Your task to perform on an android device: Go to internet settings Image 0: 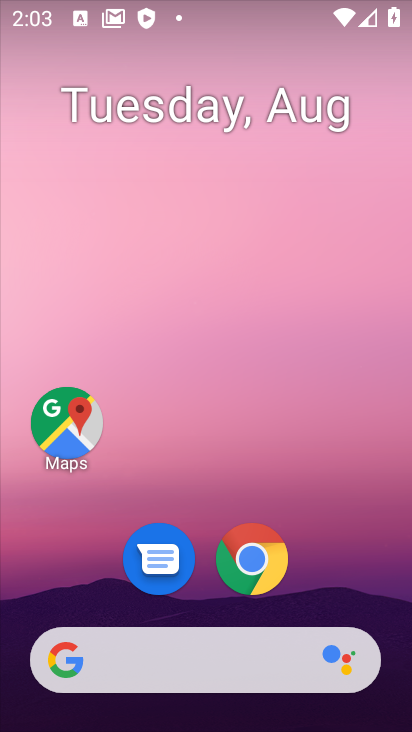
Step 0: drag from (190, 502) to (206, 51)
Your task to perform on an android device: Go to internet settings Image 1: 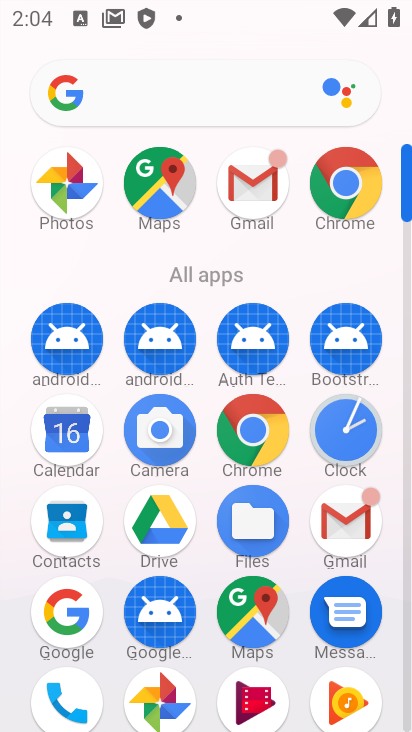
Step 1: drag from (212, 562) to (223, 186)
Your task to perform on an android device: Go to internet settings Image 2: 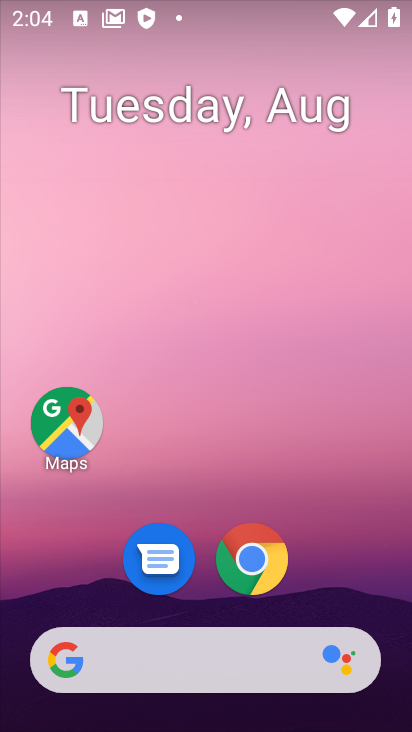
Step 2: drag from (206, 432) to (215, 80)
Your task to perform on an android device: Go to internet settings Image 3: 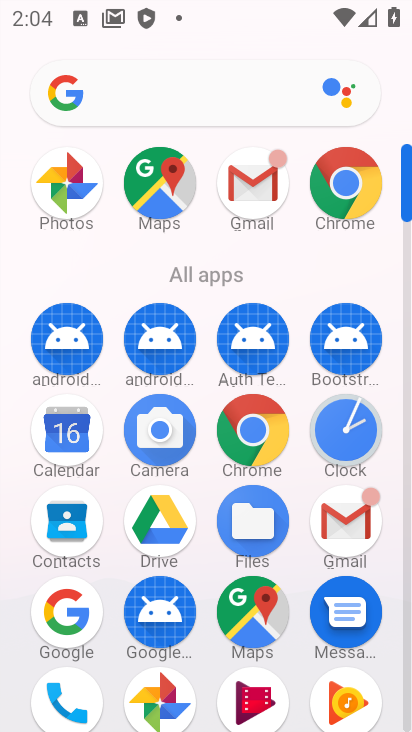
Step 3: drag from (194, 470) to (187, 82)
Your task to perform on an android device: Go to internet settings Image 4: 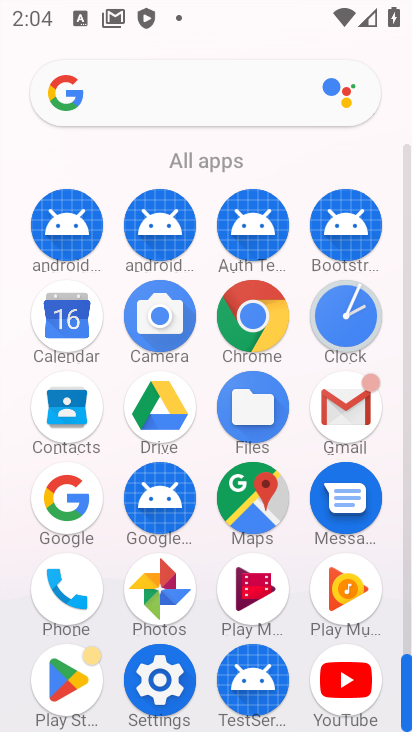
Step 4: click (166, 654)
Your task to perform on an android device: Go to internet settings Image 5: 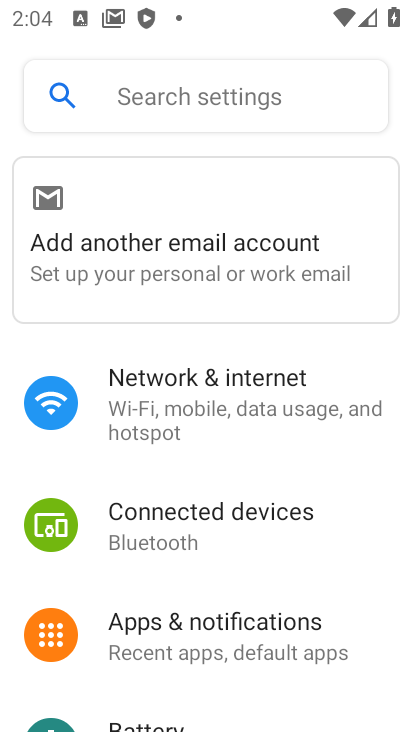
Step 5: drag from (174, 576) to (196, 439)
Your task to perform on an android device: Go to internet settings Image 6: 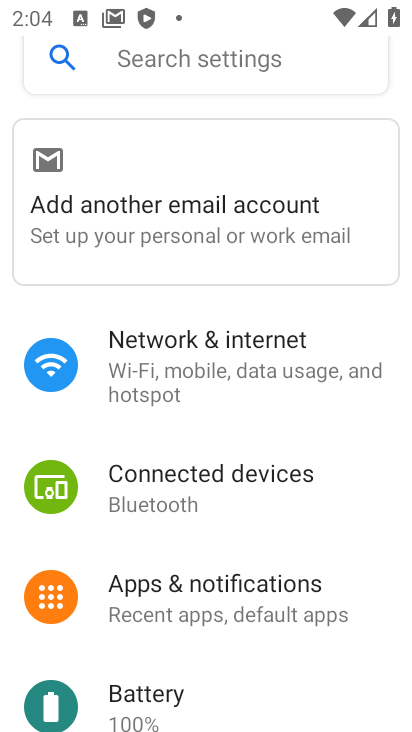
Step 6: click (200, 347)
Your task to perform on an android device: Go to internet settings Image 7: 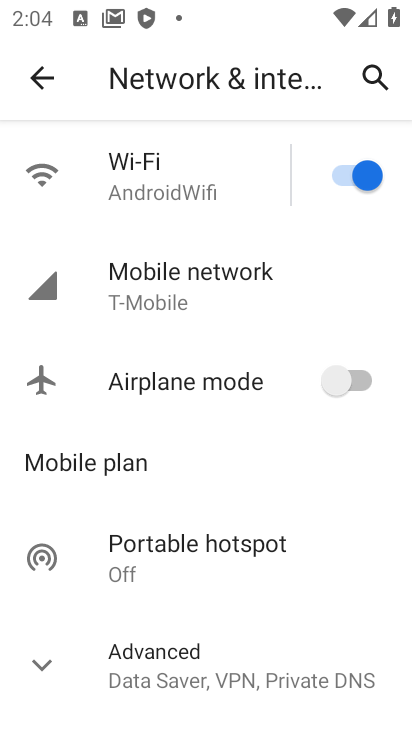
Step 7: task complete